Your task to perform on an android device: toggle data saver in the chrome app Image 0: 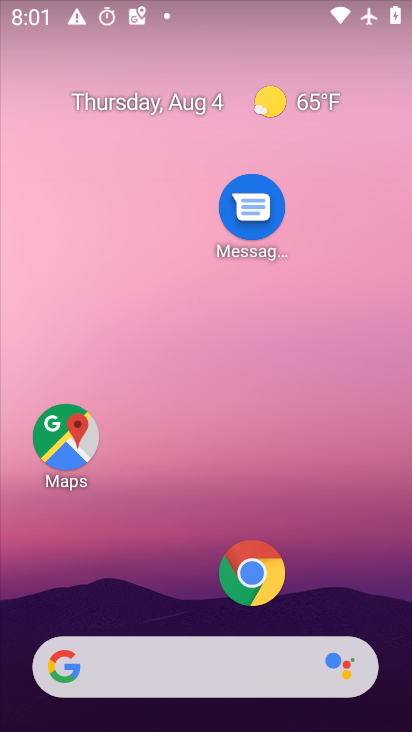
Step 0: press home button
Your task to perform on an android device: toggle data saver in the chrome app Image 1: 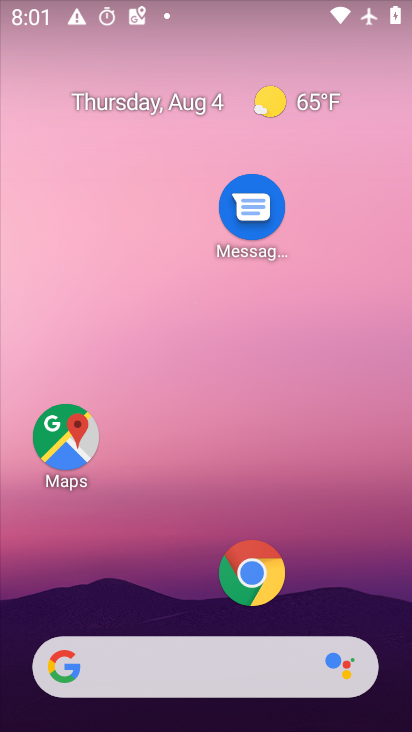
Step 1: drag from (202, 601) to (267, 231)
Your task to perform on an android device: toggle data saver in the chrome app Image 2: 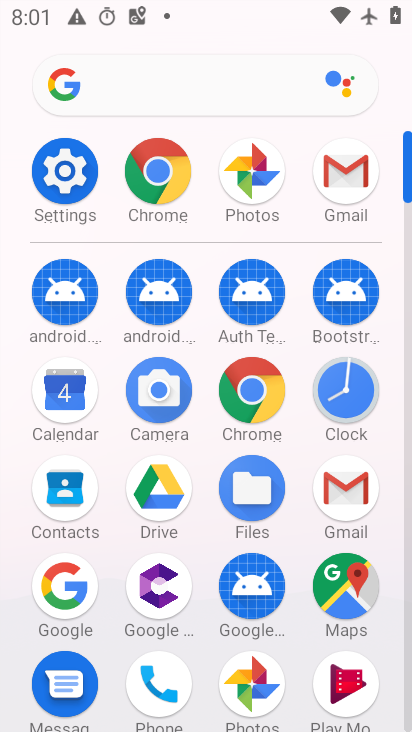
Step 2: click (157, 158)
Your task to perform on an android device: toggle data saver in the chrome app Image 3: 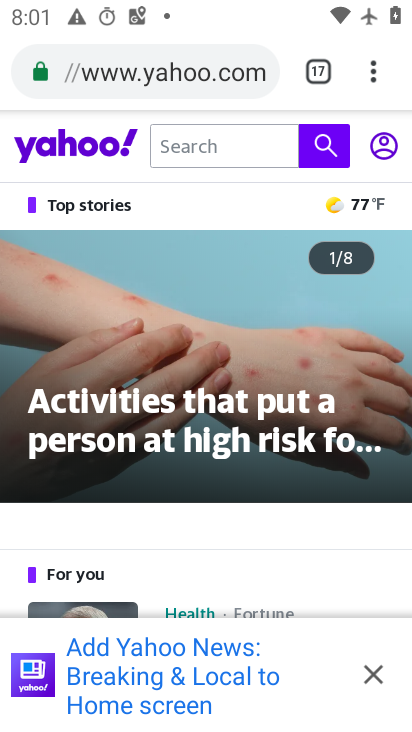
Step 3: drag from (377, 73) to (196, 582)
Your task to perform on an android device: toggle data saver in the chrome app Image 4: 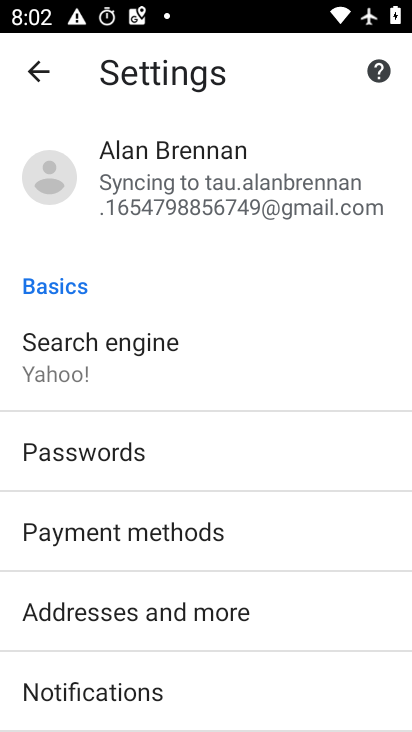
Step 4: drag from (271, 687) to (264, 191)
Your task to perform on an android device: toggle data saver in the chrome app Image 5: 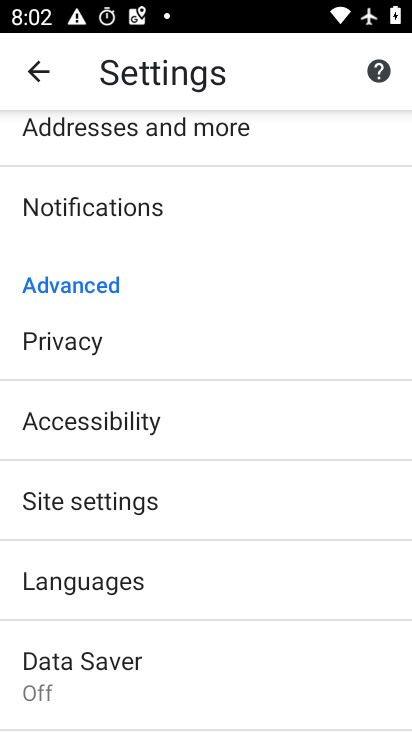
Step 5: click (76, 675)
Your task to perform on an android device: toggle data saver in the chrome app Image 6: 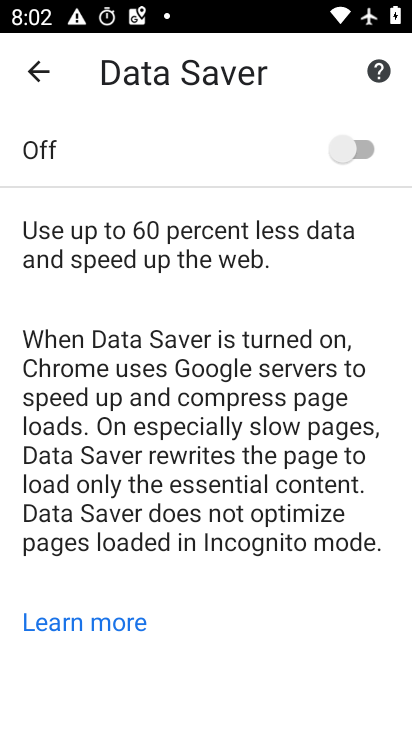
Step 6: click (353, 149)
Your task to perform on an android device: toggle data saver in the chrome app Image 7: 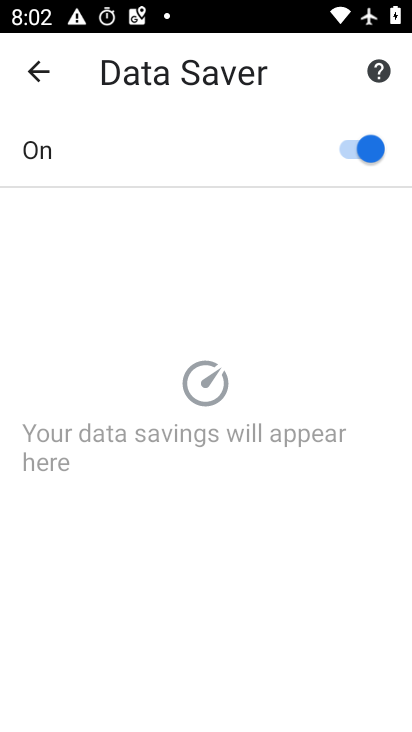
Step 7: task complete